Your task to perform on an android device: delete a single message in the gmail app Image 0: 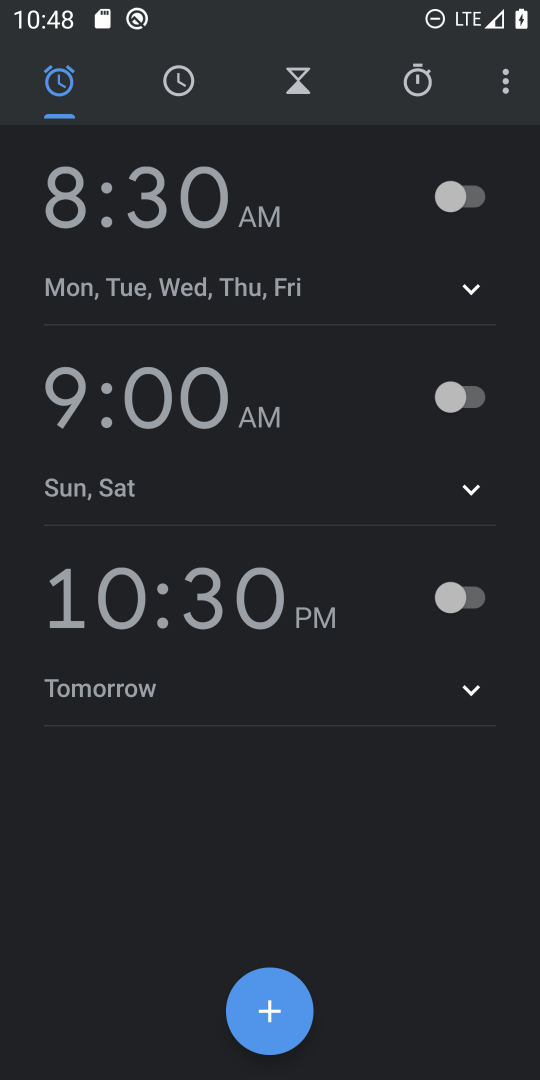
Step 0: press home button
Your task to perform on an android device: delete a single message in the gmail app Image 1: 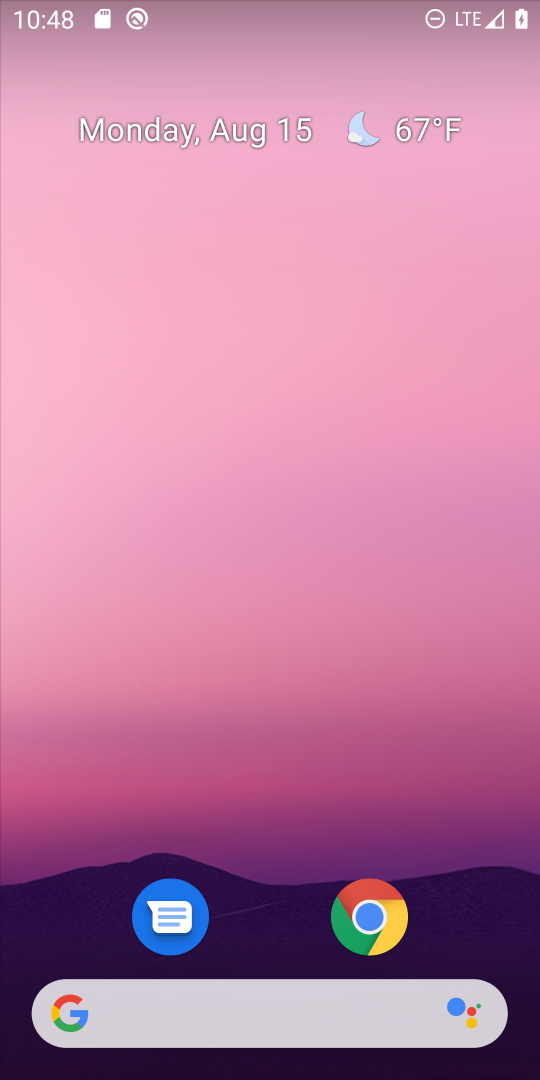
Step 1: drag from (307, 832) to (345, 20)
Your task to perform on an android device: delete a single message in the gmail app Image 2: 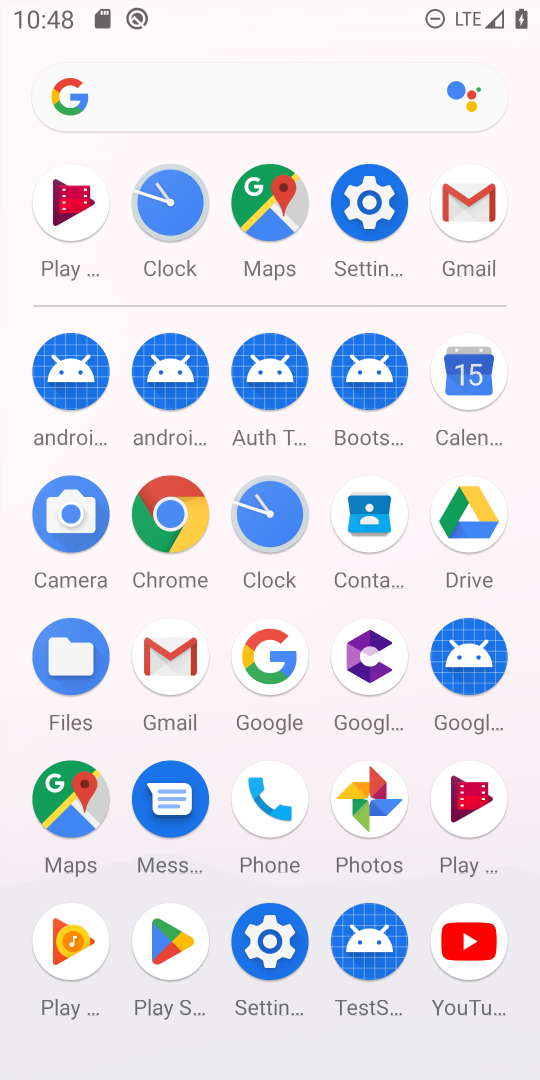
Step 2: click (476, 202)
Your task to perform on an android device: delete a single message in the gmail app Image 3: 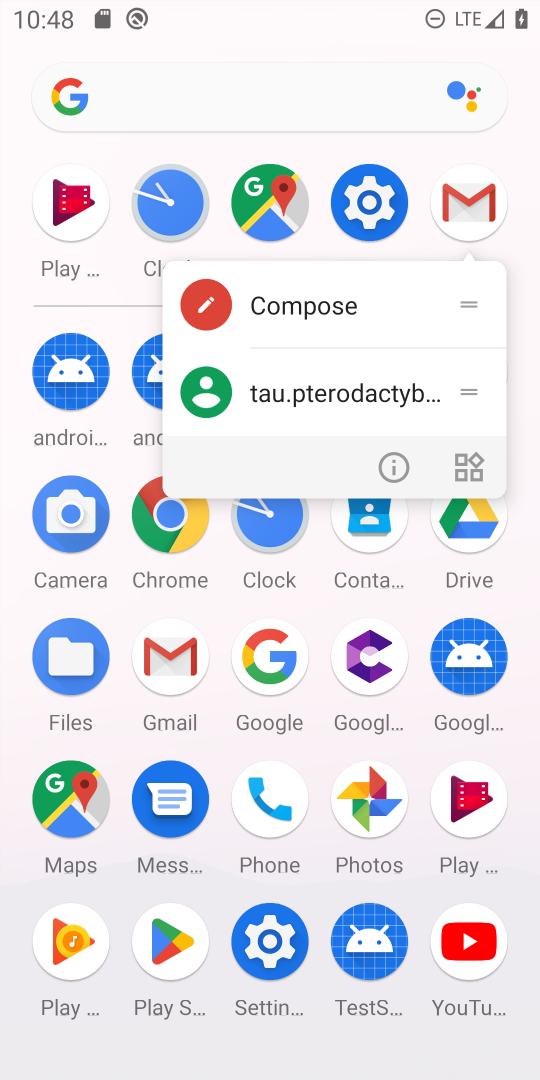
Step 3: click (476, 202)
Your task to perform on an android device: delete a single message in the gmail app Image 4: 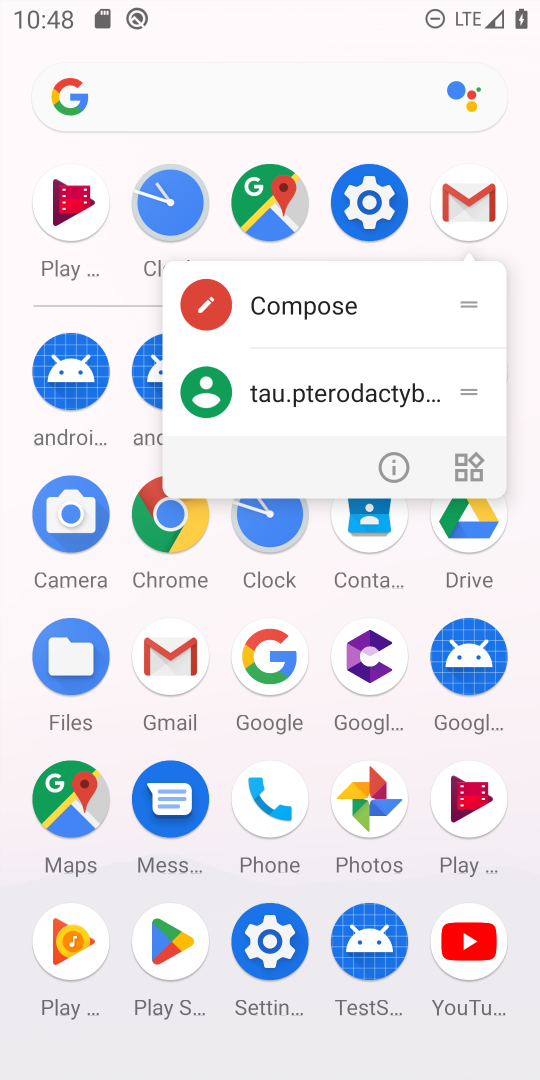
Step 4: click (476, 202)
Your task to perform on an android device: delete a single message in the gmail app Image 5: 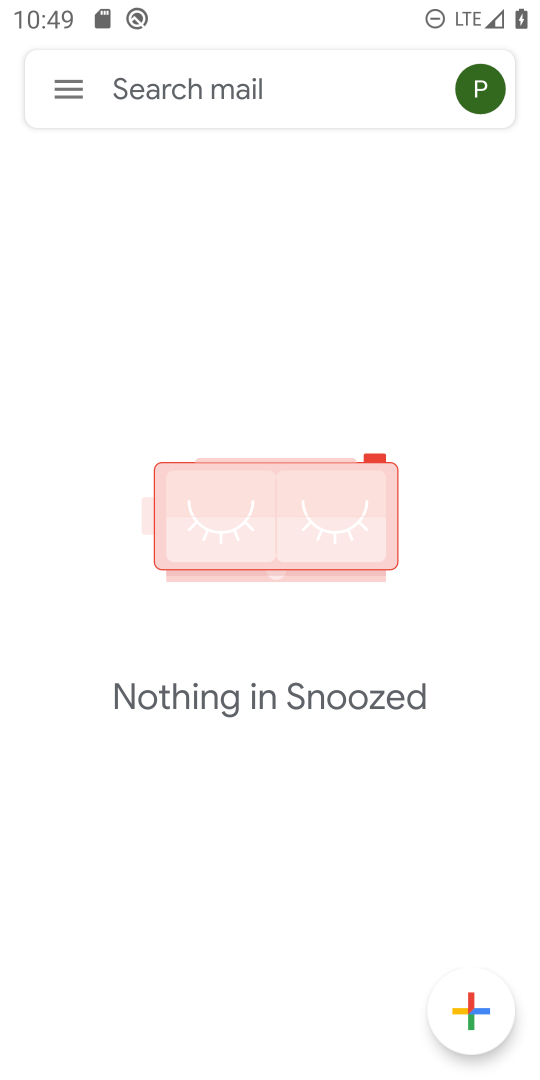
Step 5: click (79, 100)
Your task to perform on an android device: delete a single message in the gmail app Image 6: 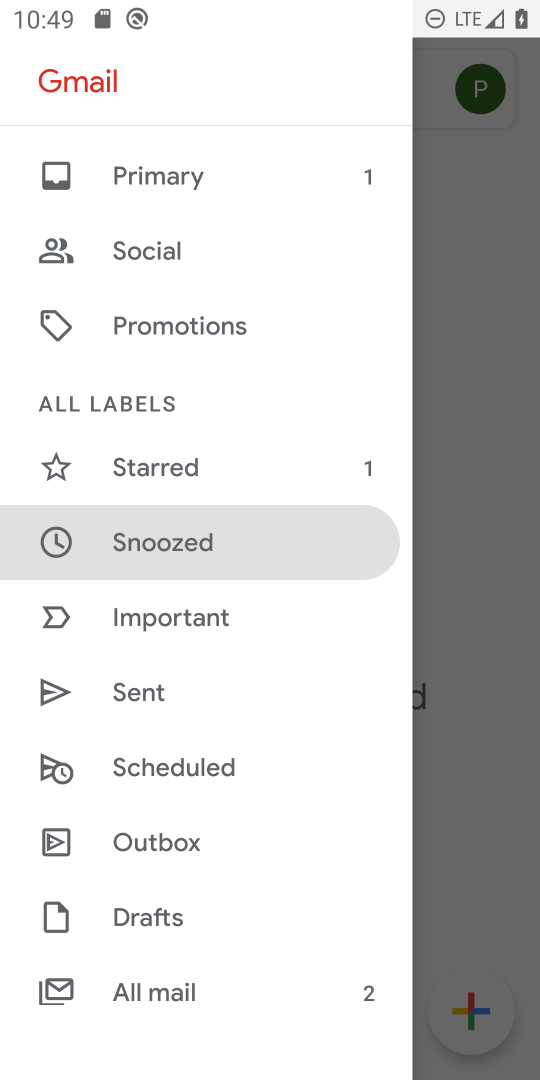
Step 6: click (162, 976)
Your task to perform on an android device: delete a single message in the gmail app Image 7: 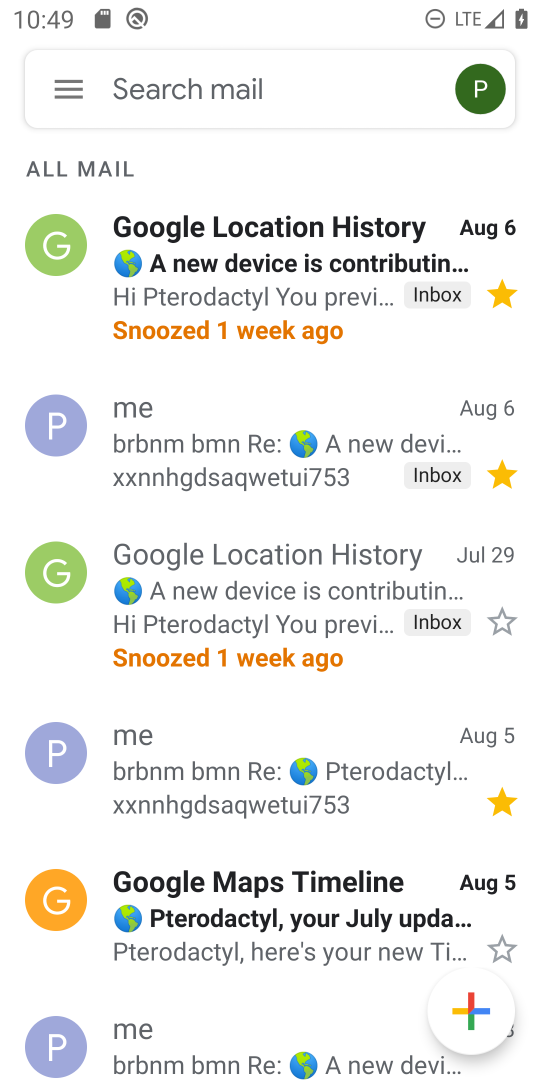
Step 7: drag from (244, 907) to (402, 95)
Your task to perform on an android device: delete a single message in the gmail app Image 8: 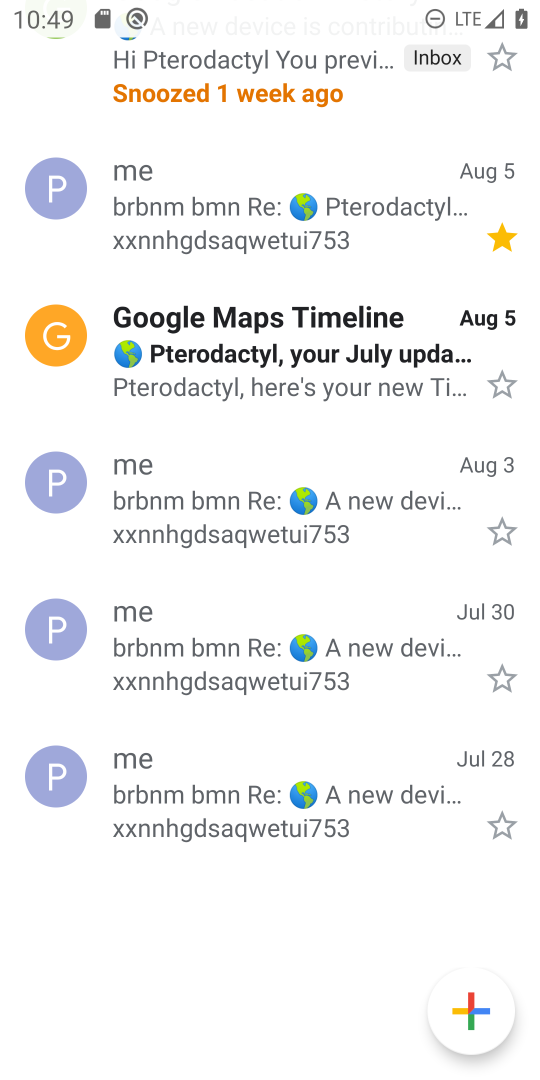
Step 8: click (66, 765)
Your task to perform on an android device: delete a single message in the gmail app Image 9: 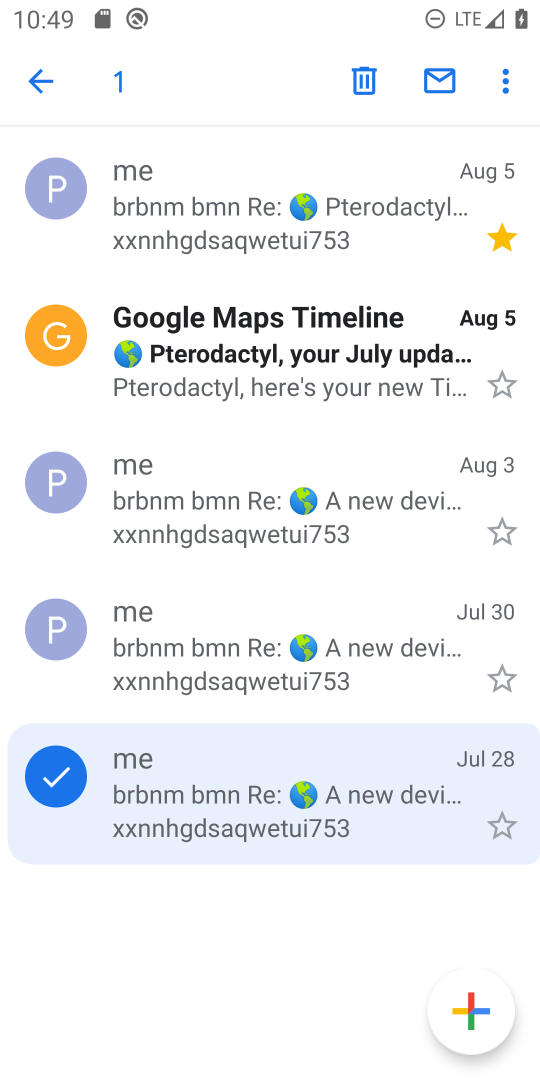
Step 9: click (371, 78)
Your task to perform on an android device: delete a single message in the gmail app Image 10: 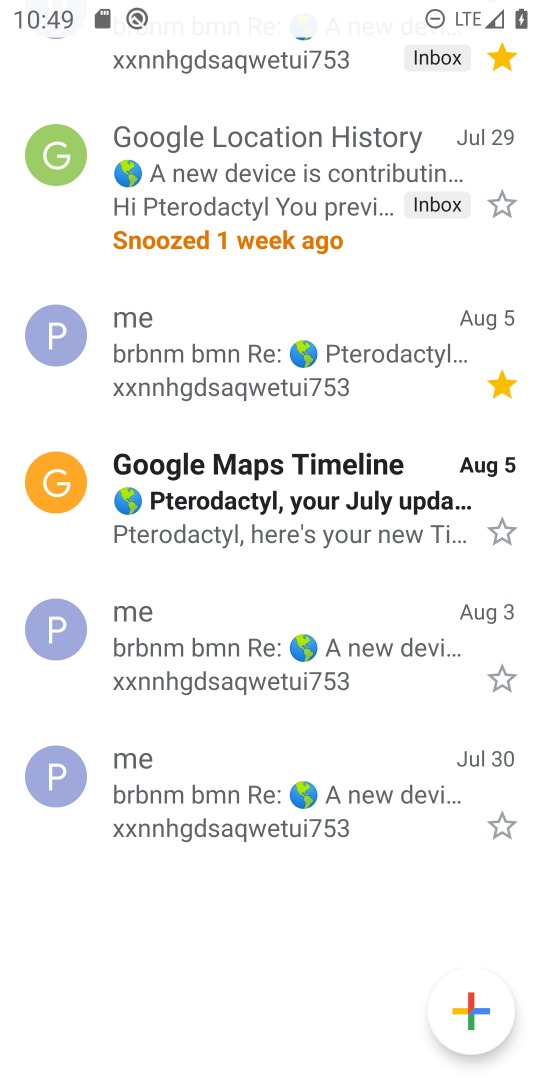
Step 10: task complete